Your task to perform on an android device: Open display settings Image 0: 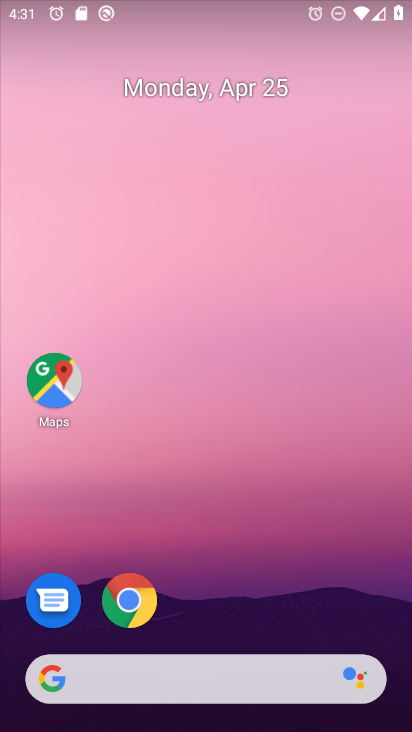
Step 0: drag from (225, 456) to (221, 13)
Your task to perform on an android device: Open display settings Image 1: 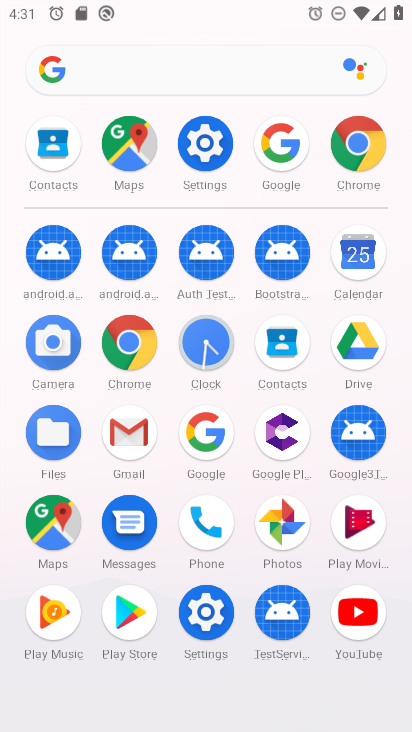
Step 1: drag from (5, 479) to (13, 233)
Your task to perform on an android device: Open display settings Image 2: 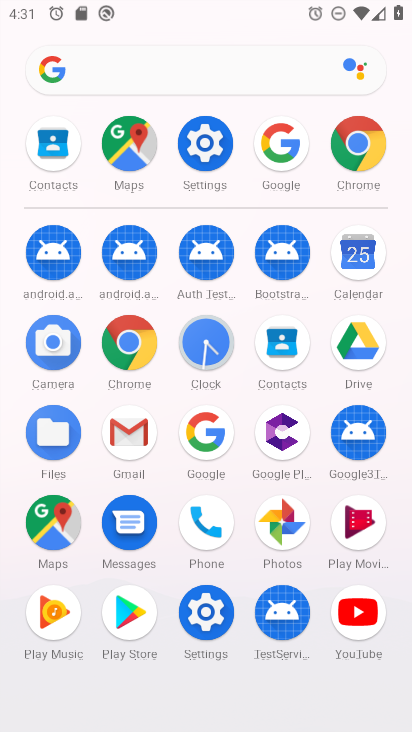
Step 2: click (206, 606)
Your task to perform on an android device: Open display settings Image 3: 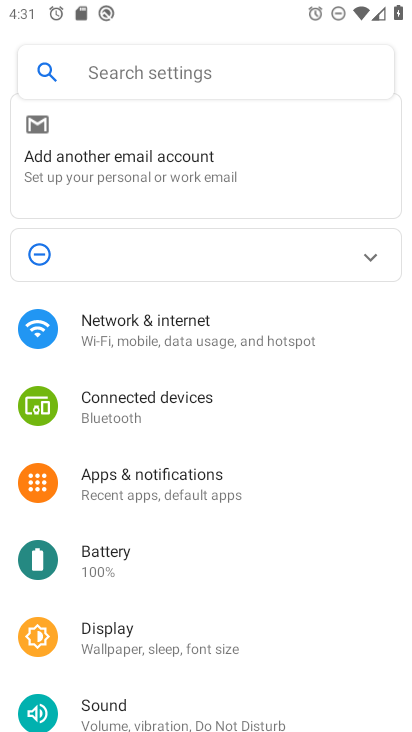
Step 3: click (139, 646)
Your task to perform on an android device: Open display settings Image 4: 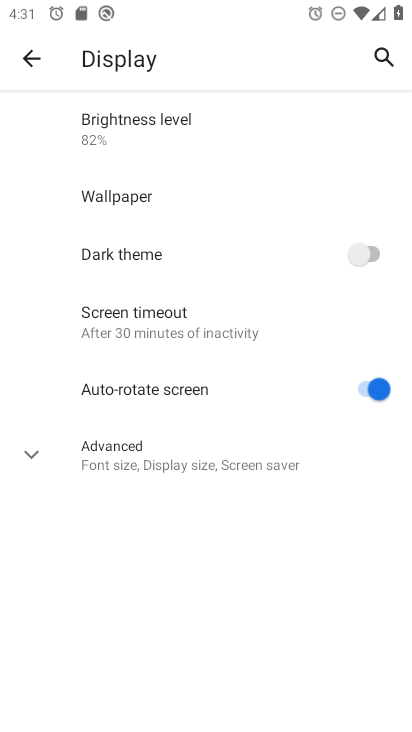
Step 4: click (58, 452)
Your task to perform on an android device: Open display settings Image 5: 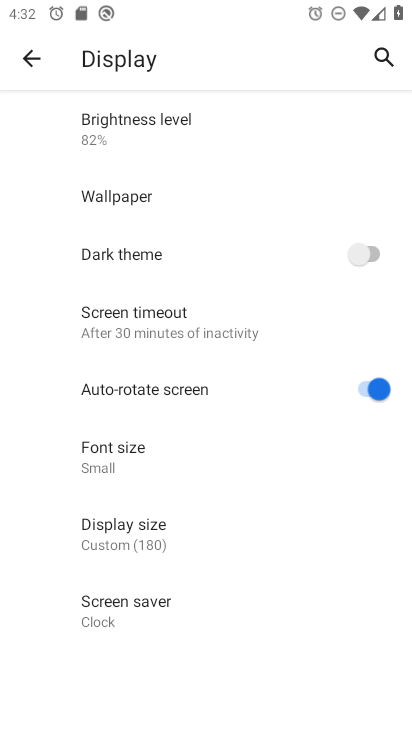
Step 5: task complete